Your task to perform on an android device: Go to notification settings Image 0: 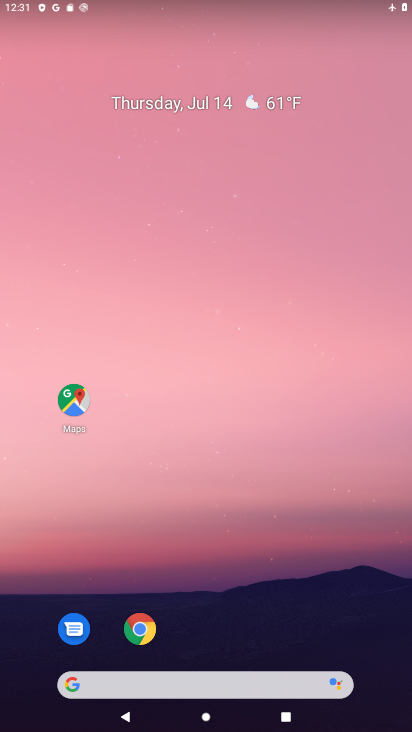
Step 0: drag from (180, 648) to (201, 106)
Your task to perform on an android device: Go to notification settings Image 1: 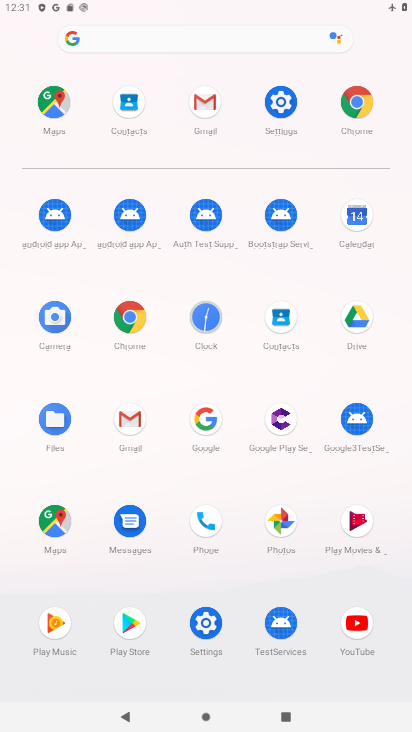
Step 1: click (286, 96)
Your task to perform on an android device: Go to notification settings Image 2: 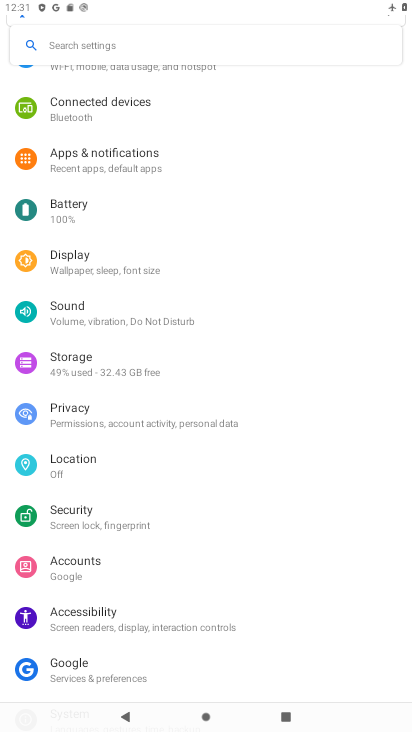
Step 2: click (109, 163)
Your task to perform on an android device: Go to notification settings Image 3: 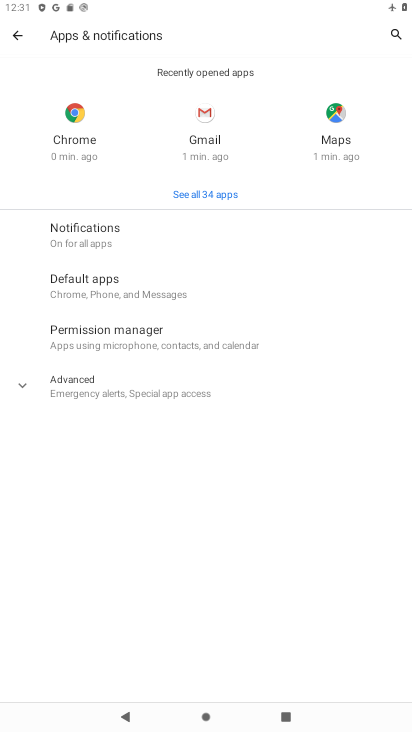
Step 3: task complete